Your task to perform on an android device: What's the weather going to be tomorrow? Image 0: 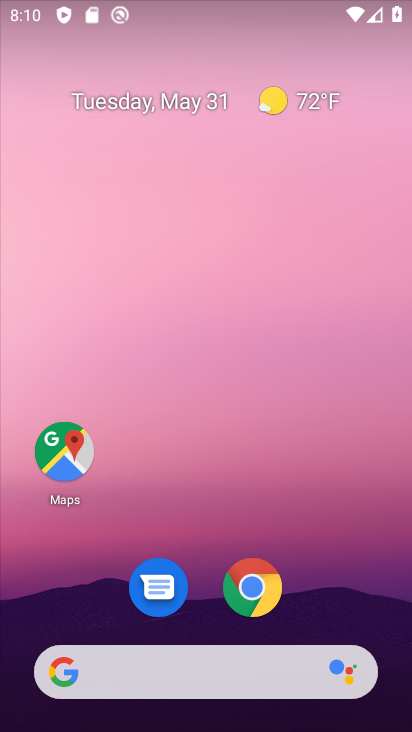
Step 0: click (327, 102)
Your task to perform on an android device: What's the weather going to be tomorrow? Image 1: 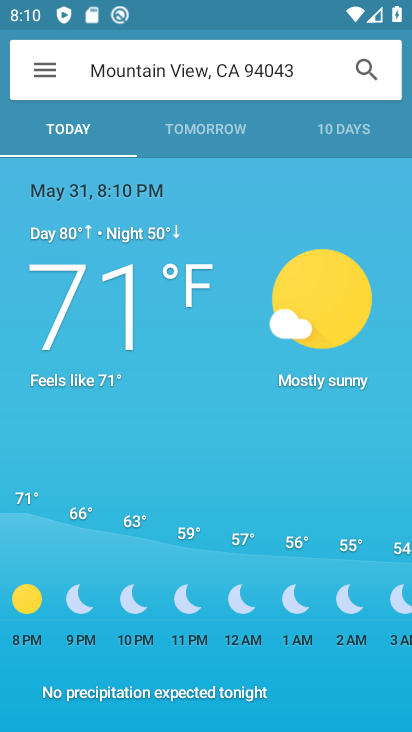
Step 1: click (179, 115)
Your task to perform on an android device: What's the weather going to be tomorrow? Image 2: 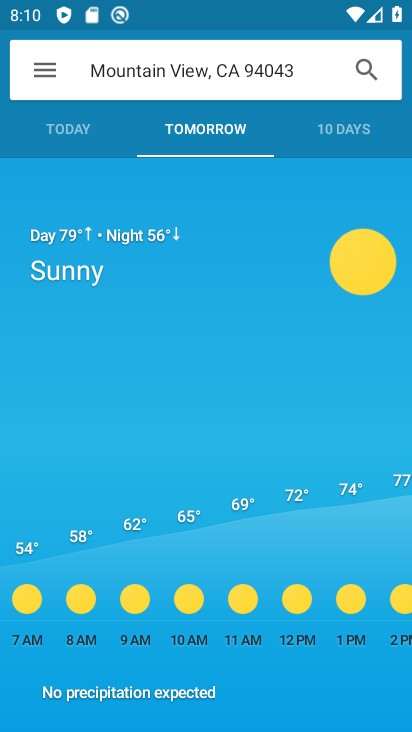
Step 2: task complete